Your task to perform on an android device: delete a single message in the gmail app Image 0: 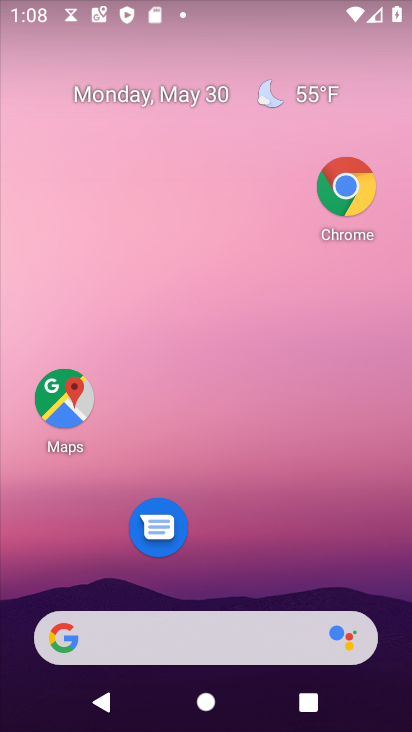
Step 0: drag from (221, 583) to (330, 87)
Your task to perform on an android device: delete a single message in the gmail app Image 1: 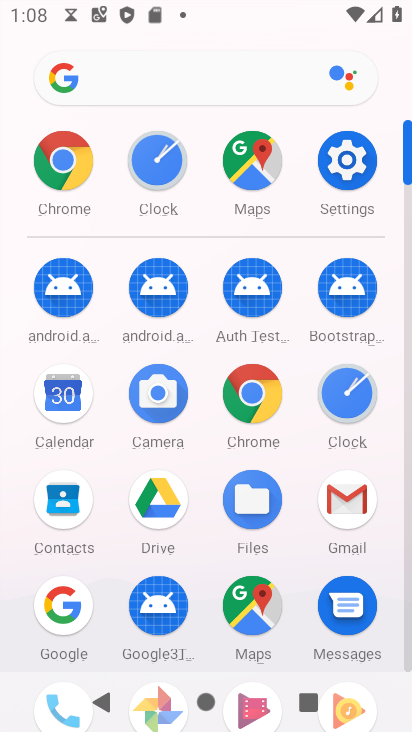
Step 1: click (342, 510)
Your task to perform on an android device: delete a single message in the gmail app Image 2: 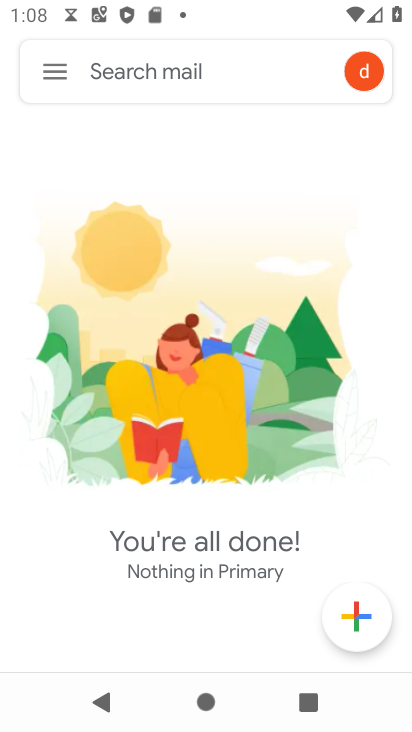
Step 2: click (40, 59)
Your task to perform on an android device: delete a single message in the gmail app Image 3: 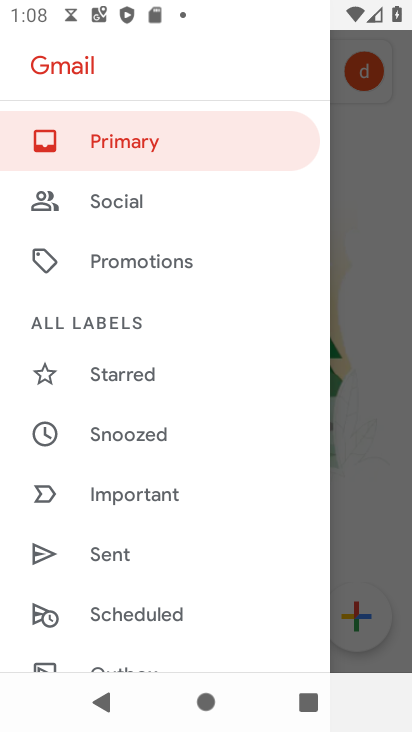
Step 3: drag from (213, 599) to (251, 714)
Your task to perform on an android device: delete a single message in the gmail app Image 4: 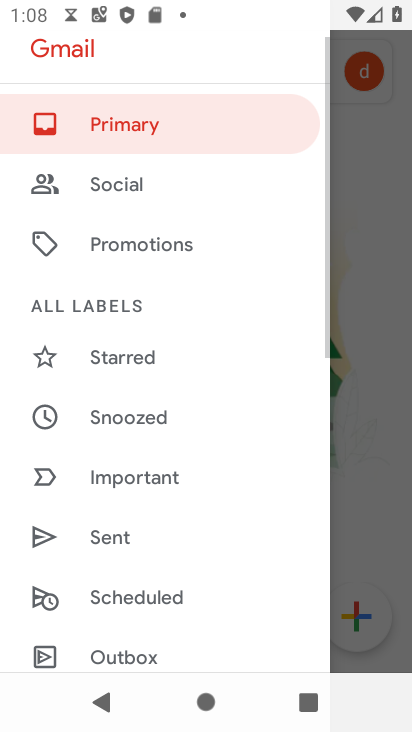
Step 4: click (133, 117)
Your task to perform on an android device: delete a single message in the gmail app Image 5: 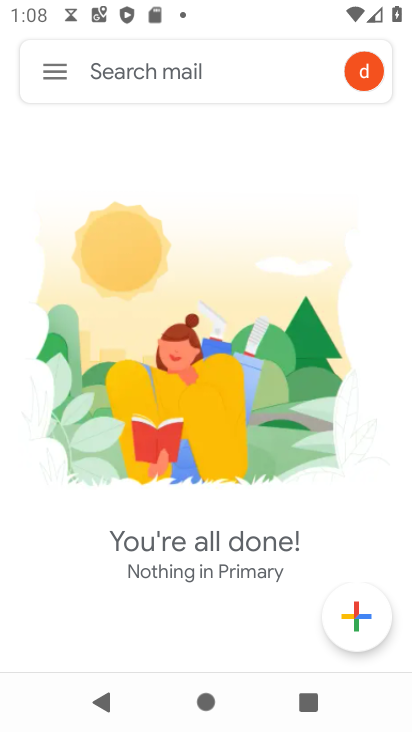
Step 5: task complete